Your task to perform on an android device: Search for vegetarian restaurants on Maps Image 0: 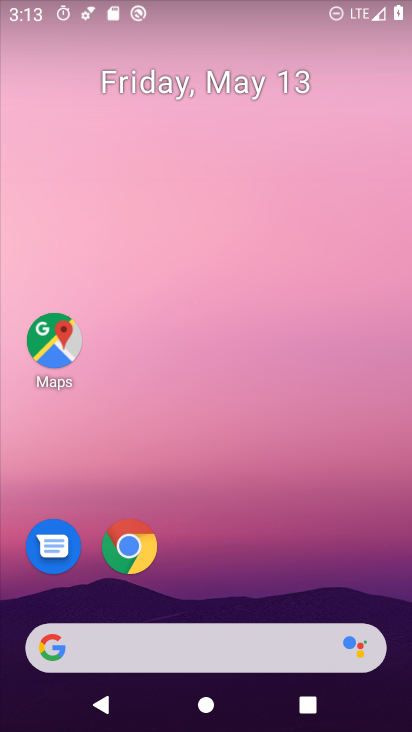
Step 0: drag from (171, 502) to (197, 158)
Your task to perform on an android device: Search for vegetarian restaurants on Maps Image 1: 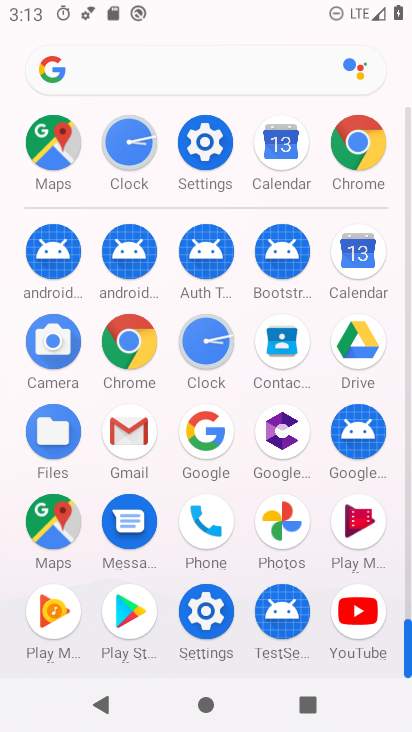
Step 1: click (46, 525)
Your task to perform on an android device: Search for vegetarian restaurants on Maps Image 2: 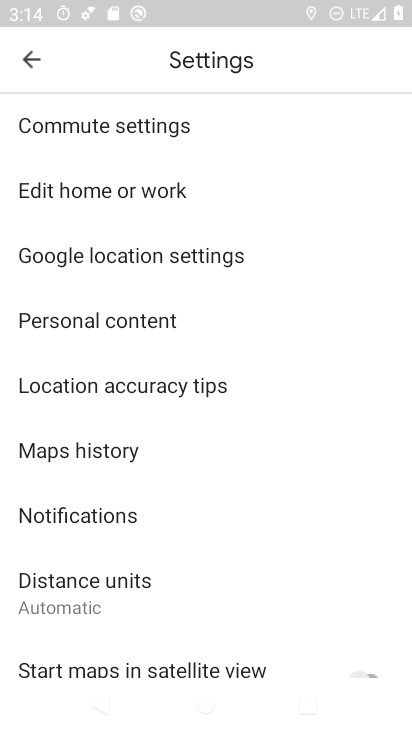
Step 2: click (30, 59)
Your task to perform on an android device: Search for vegetarian restaurants on Maps Image 3: 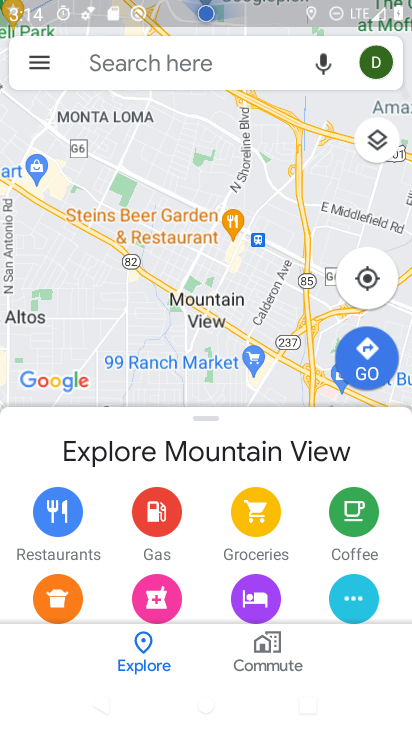
Step 3: click (150, 70)
Your task to perform on an android device: Search for vegetarian restaurants on Maps Image 4: 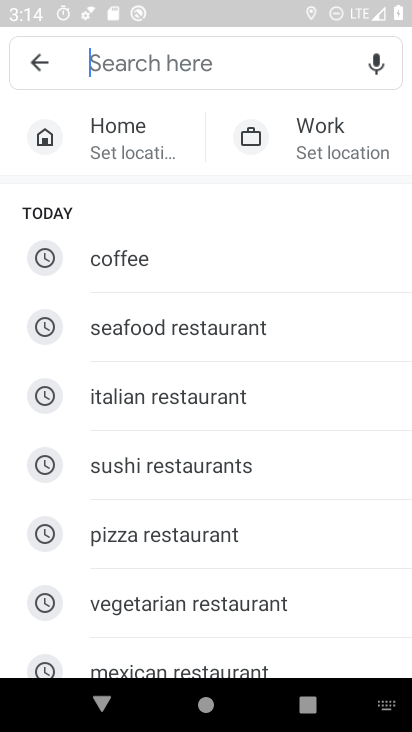
Step 4: click (143, 614)
Your task to perform on an android device: Search for vegetarian restaurants on Maps Image 5: 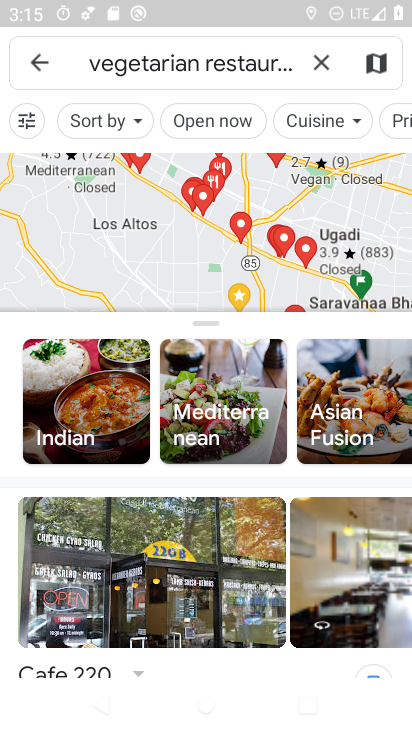
Step 5: task complete